Your task to perform on an android device: turn off javascript in the chrome app Image 0: 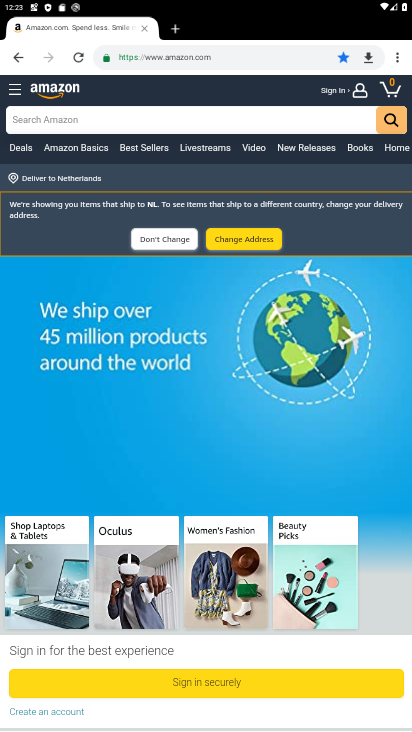
Step 0: click (395, 54)
Your task to perform on an android device: turn off javascript in the chrome app Image 1: 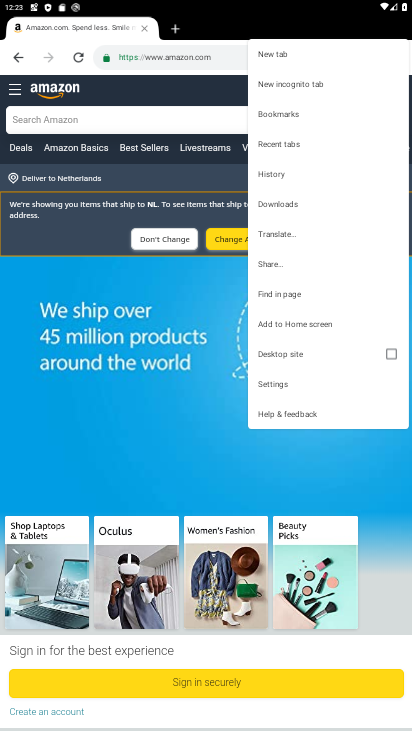
Step 1: click (266, 389)
Your task to perform on an android device: turn off javascript in the chrome app Image 2: 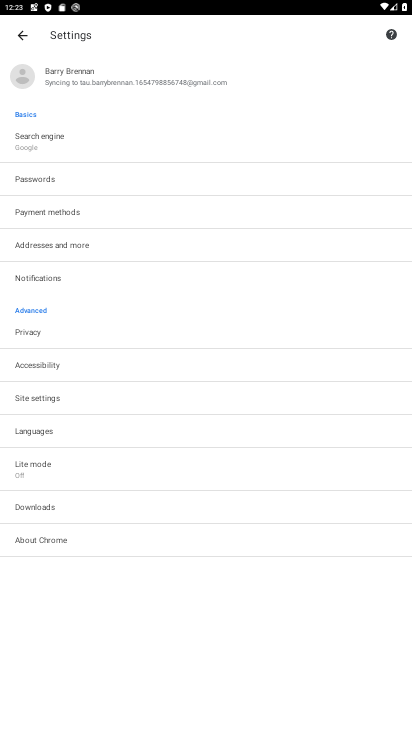
Step 2: click (34, 399)
Your task to perform on an android device: turn off javascript in the chrome app Image 3: 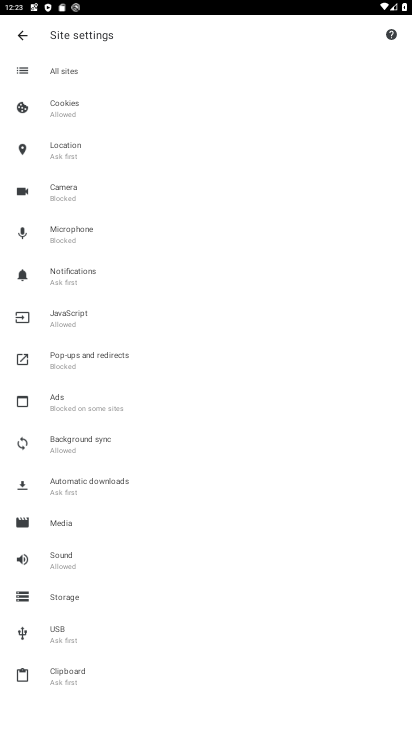
Step 3: click (60, 315)
Your task to perform on an android device: turn off javascript in the chrome app Image 4: 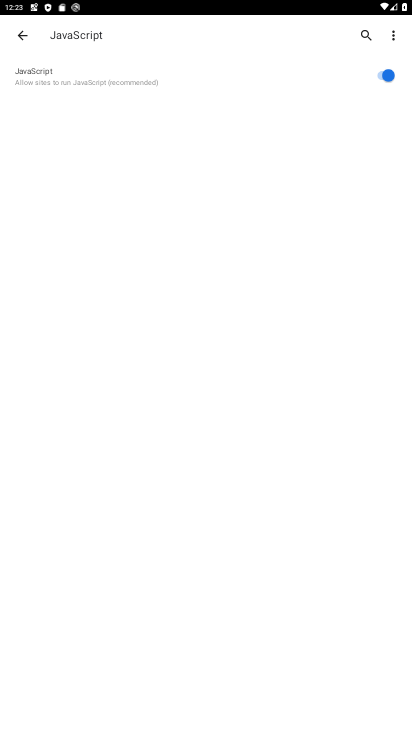
Step 4: click (378, 72)
Your task to perform on an android device: turn off javascript in the chrome app Image 5: 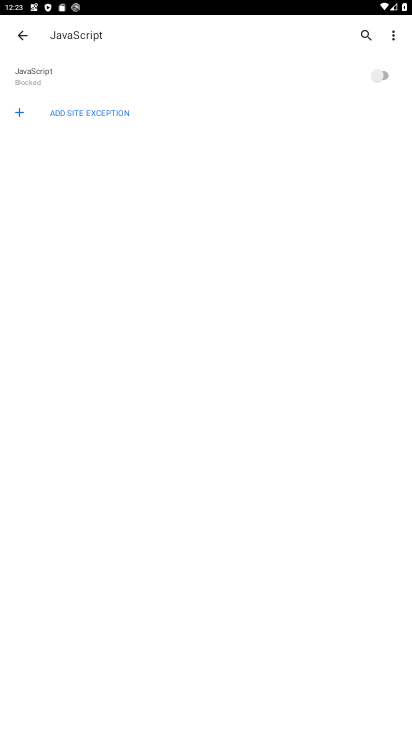
Step 5: task complete